Your task to perform on an android device: create a new album in the google photos Image 0: 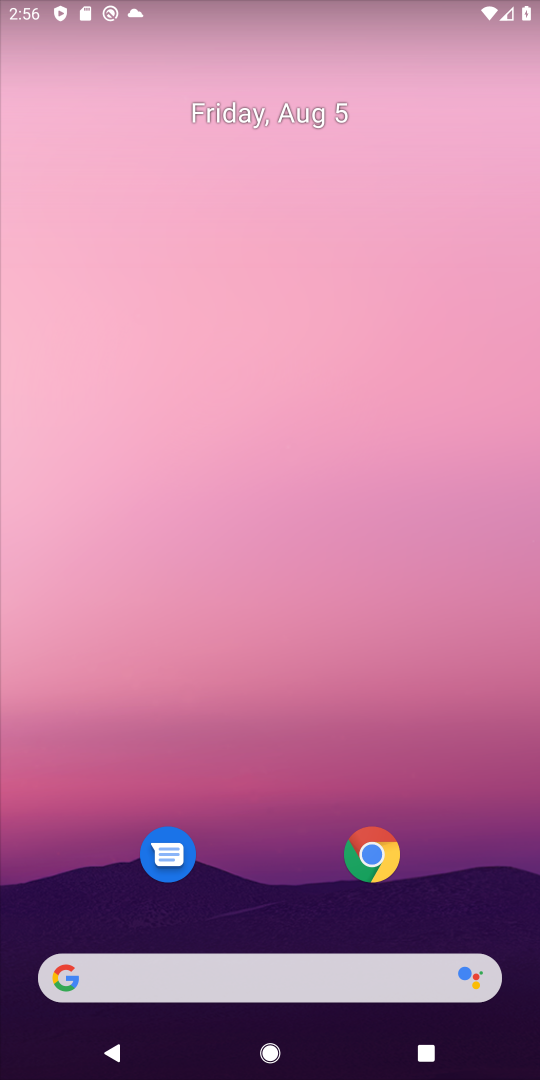
Step 0: drag from (53, 1021) to (423, 220)
Your task to perform on an android device: create a new album in the google photos Image 1: 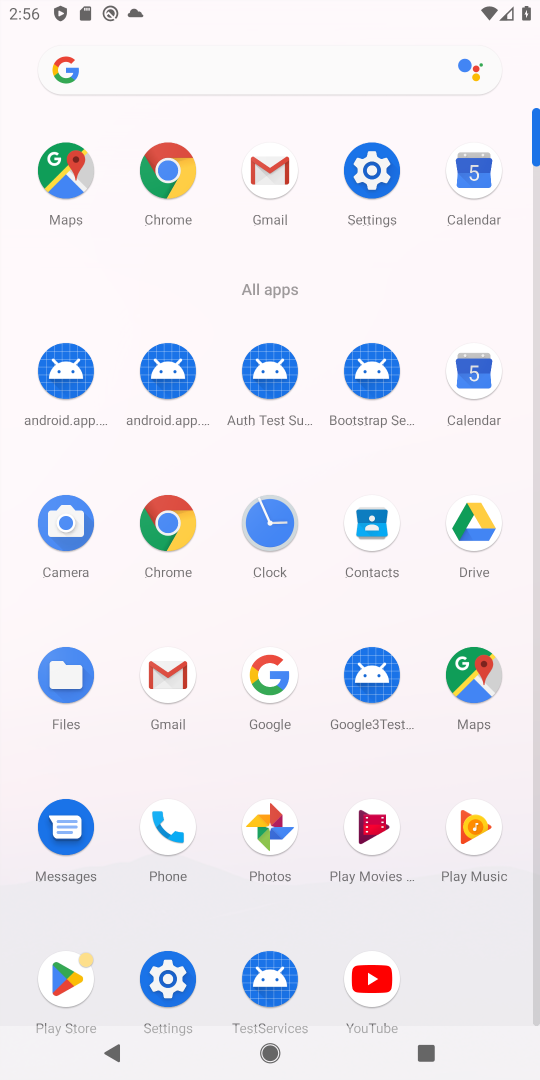
Step 1: click (264, 838)
Your task to perform on an android device: create a new album in the google photos Image 2: 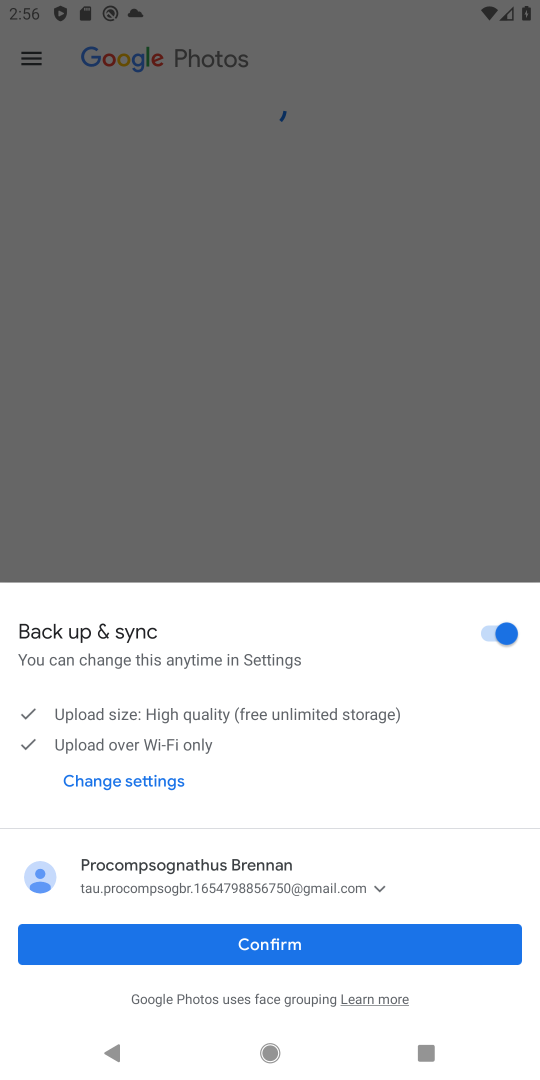
Step 2: click (283, 954)
Your task to perform on an android device: create a new album in the google photos Image 3: 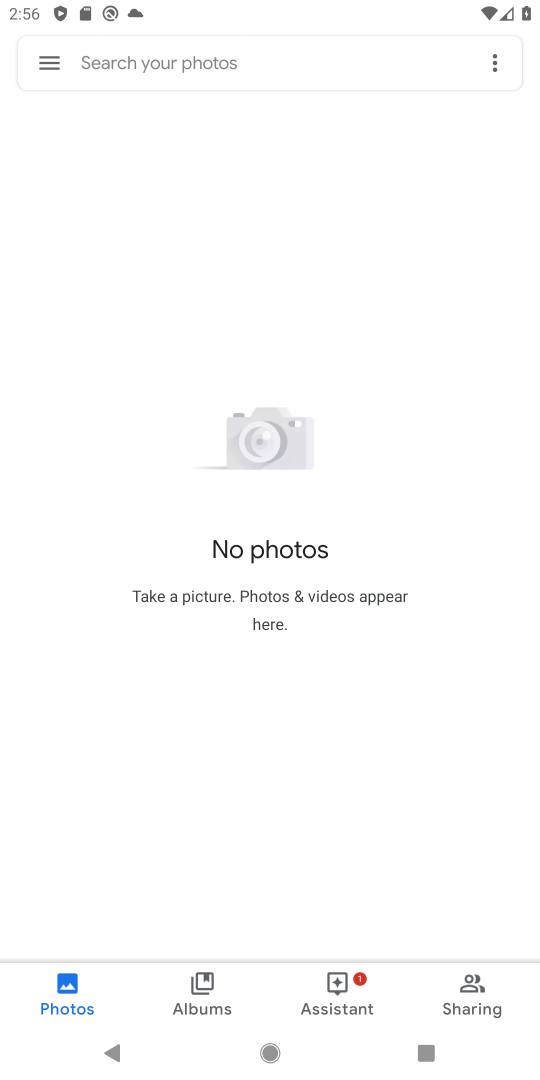
Step 3: task complete